Your task to perform on an android device: Show me popular games on the Play Store Image 0: 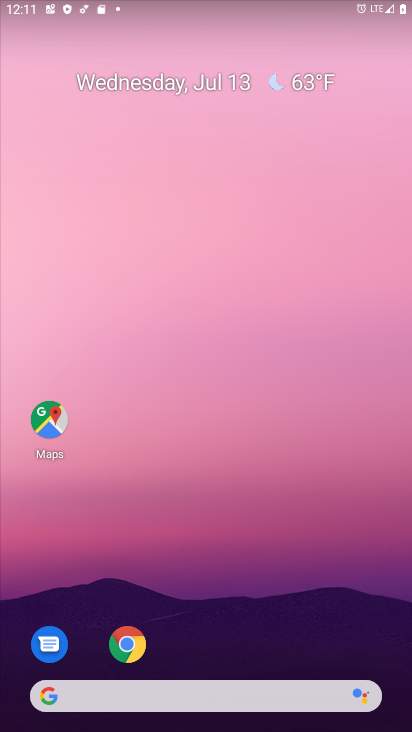
Step 0: drag from (241, 692) to (246, 32)
Your task to perform on an android device: Show me popular games on the Play Store Image 1: 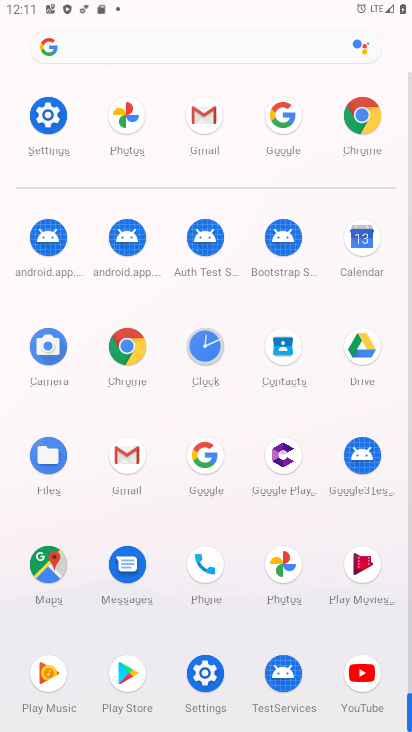
Step 1: click (129, 672)
Your task to perform on an android device: Show me popular games on the Play Store Image 2: 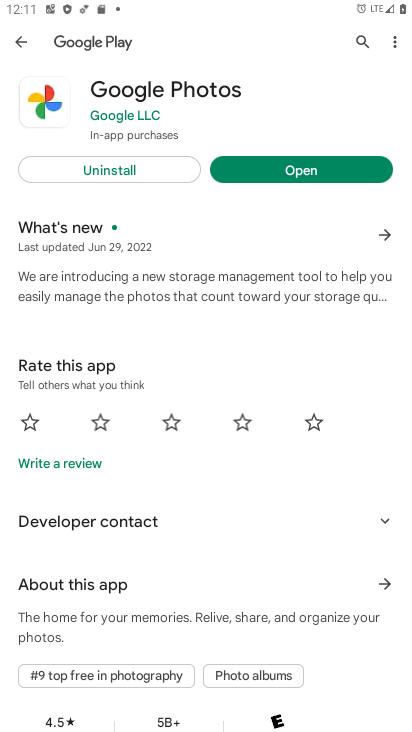
Step 2: press back button
Your task to perform on an android device: Show me popular games on the Play Store Image 3: 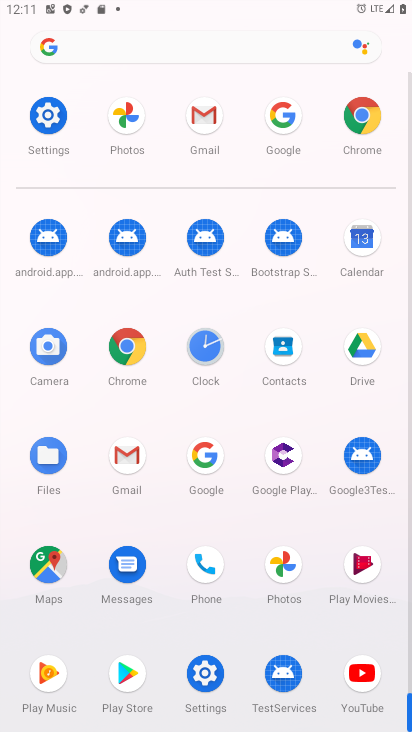
Step 3: click (128, 674)
Your task to perform on an android device: Show me popular games on the Play Store Image 4: 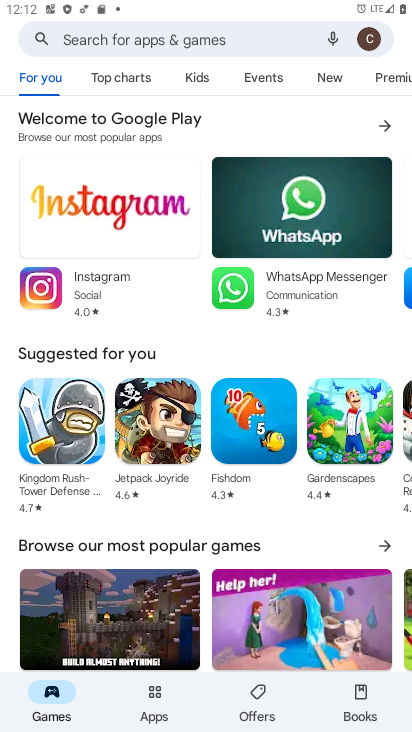
Step 4: click (284, 37)
Your task to perform on an android device: Show me popular games on the Play Store Image 5: 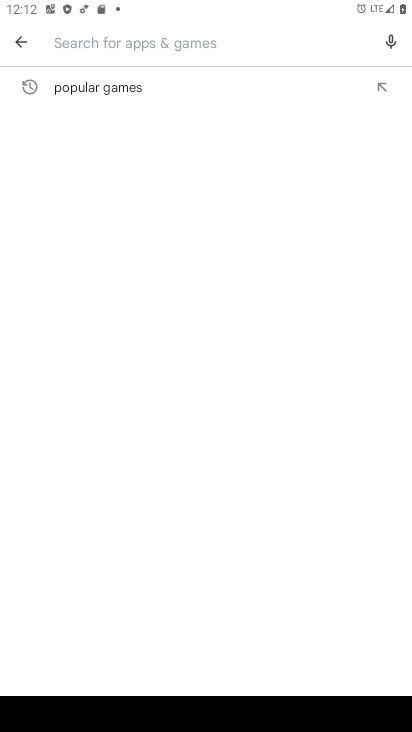
Step 5: click (118, 89)
Your task to perform on an android device: Show me popular games on the Play Store Image 6: 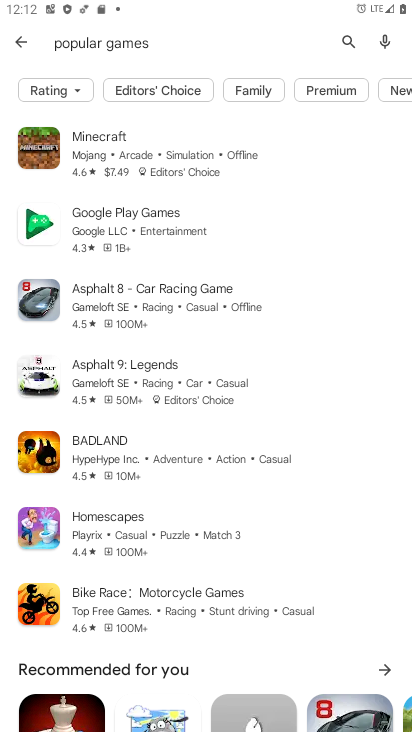
Step 6: task complete